Your task to perform on an android device: Open settings on Google Maps Image 0: 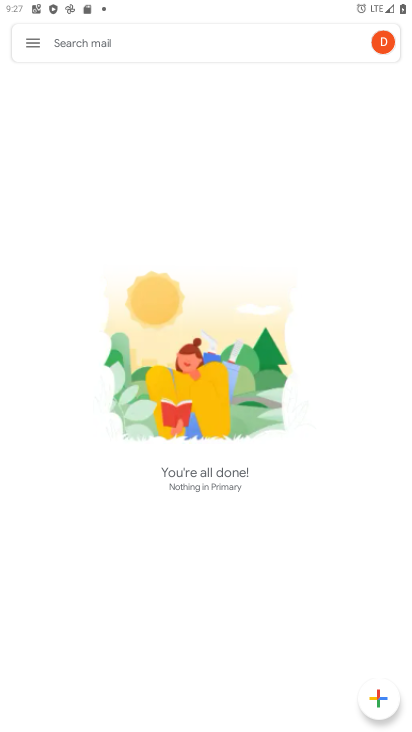
Step 0: press home button
Your task to perform on an android device: Open settings on Google Maps Image 1: 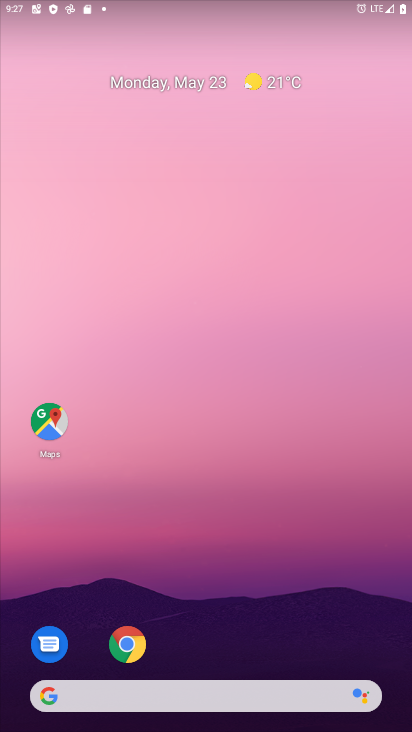
Step 1: click (49, 423)
Your task to perform on an android device: Open settings on Google Maps Image 2: 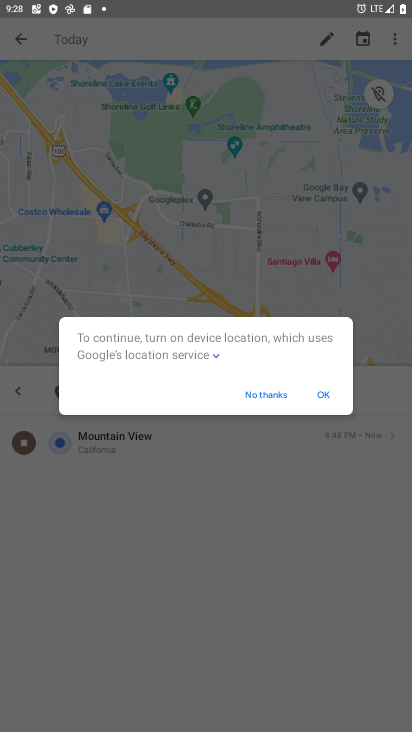
Step 2: click (324, 396)
Your task to perform on an android device: Open settings on Google Maps Image 3: 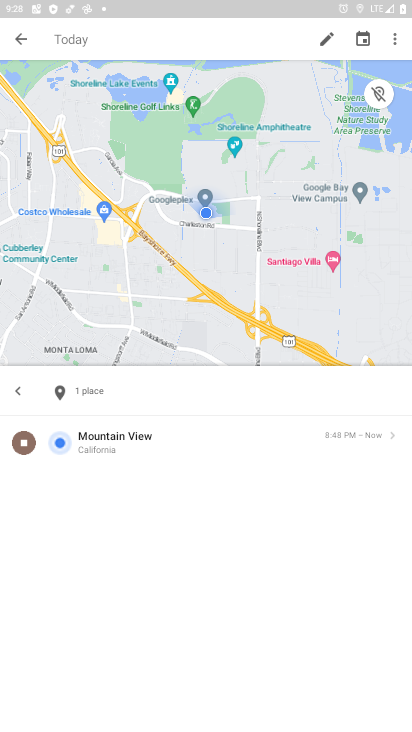
Step 3: click (26, 42)
Your task to perform on an android device: Open settings on Google Maps Image 4: 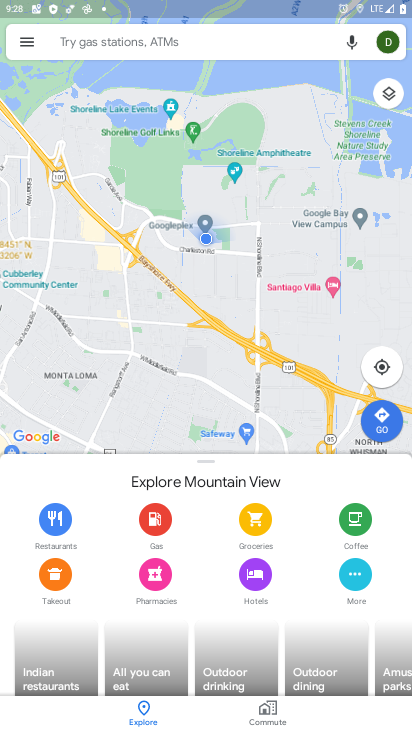
Step 4: click (30, 48)
Your task to perform on an android device: Open settings on Google Maps Image 5: 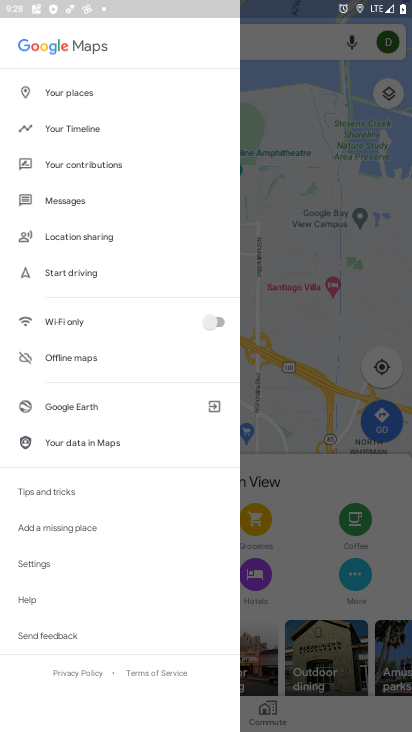
Step 5: click (53, 558)
Your task to perform on an android device: Open settings on Google Maps Image 6: 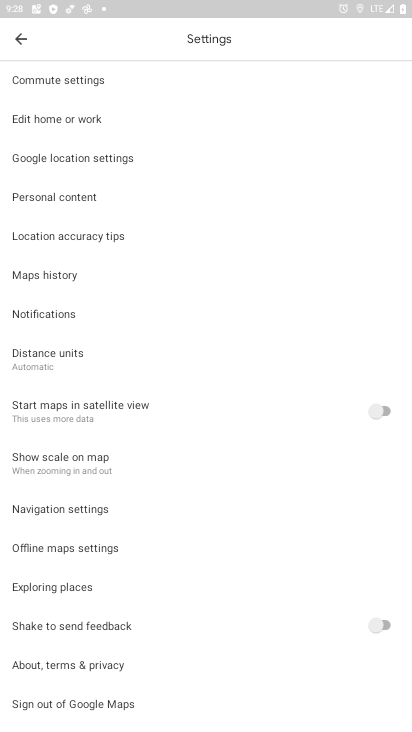
Step 6: task complete